Your task to perform on an android device: choose inbox layout in the gmail app Image 0: 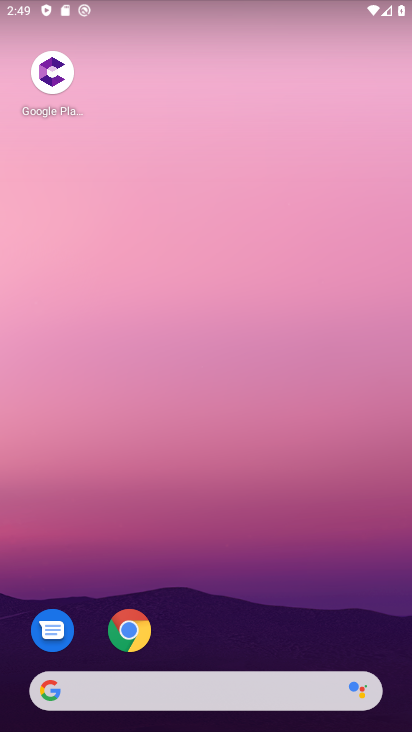
Step 0: drag from (178, 636) to (201, 248)
Your task to perform on an android device: choose inbox layout in the gmail app Image 1: 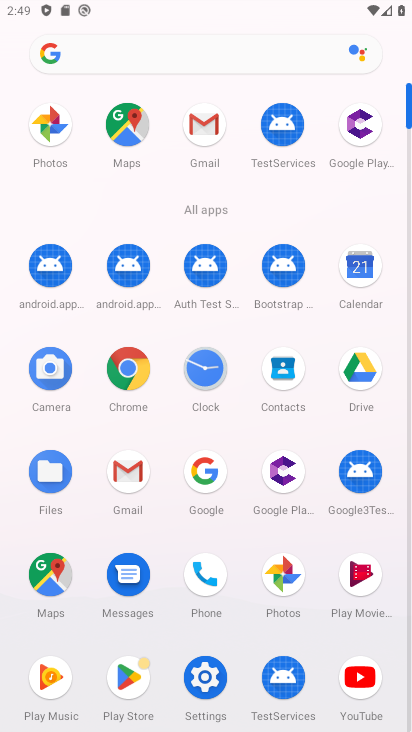
Step 1: click (127, 464)
Your task to perform on an android device: choose inbox layout in the gmail app Image 2: 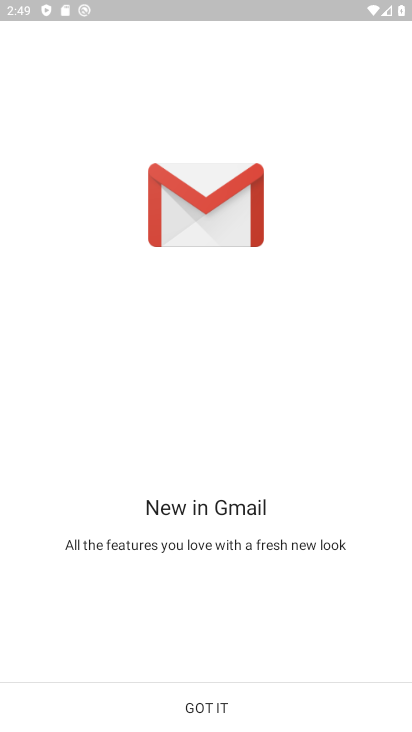
Step 2: click (187, 702)
Your task to perform on an android device: choose inbox layout in the gmail app Image 3: 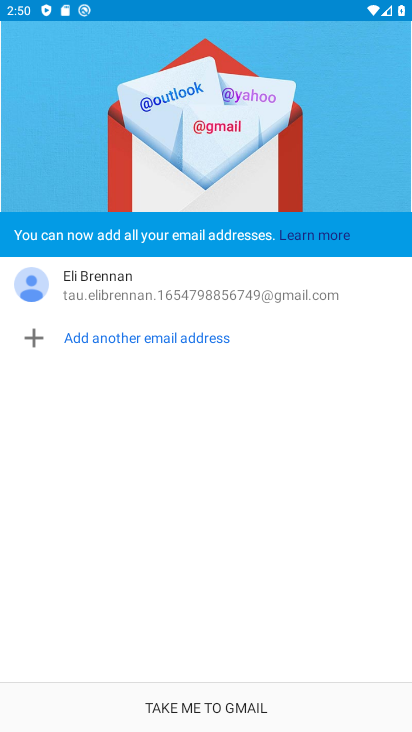
Step 3: click (190, 719)
Your task to perform on an android device: choose inbox layout in the gmail app Image 4: 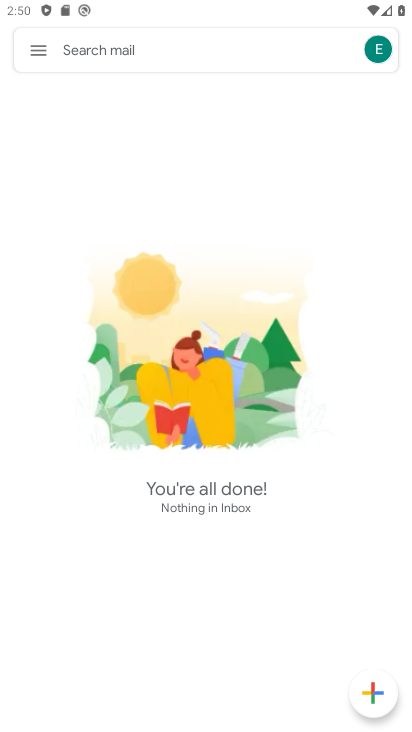
Step 4: click (42, 59)
Your task to perform on an android device: choose inbox layout in the gmail app Image 5: 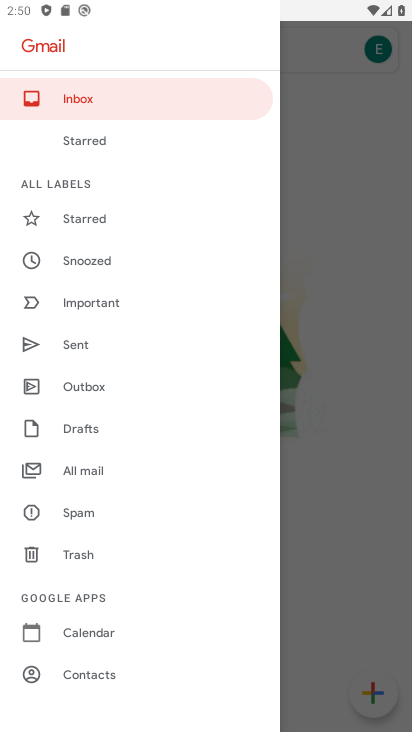
Step 5: drag from (84, 624) to (150, 253)
Your task to perform on an android device: choose inbox layout in the gmail app Image 6: 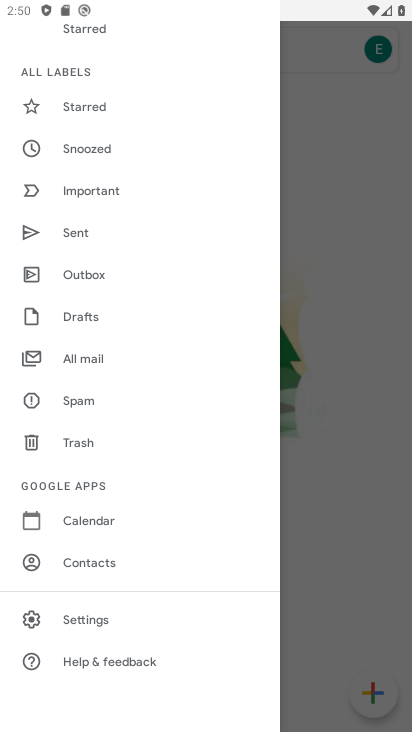
Step 6: click (118, 621)
Your task to perform on an android device: choose inbox layout in the gmail app Image 7: 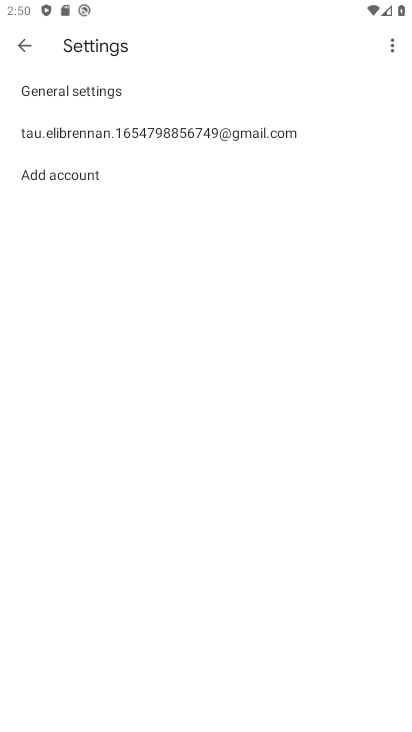
Step 7: click (130, 124)
Your task to perform on an android device: choose inbox layout in the gmail app Image 8: 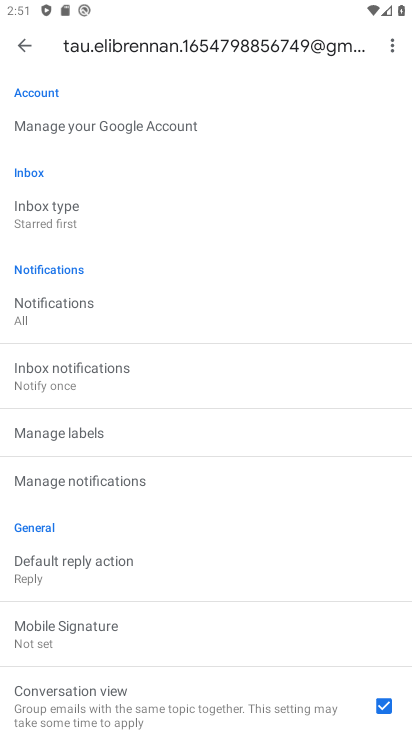
Step 8: click (100, 210)
Your task to perform on an android device: choose inbox layout in the gmail app Image 9: 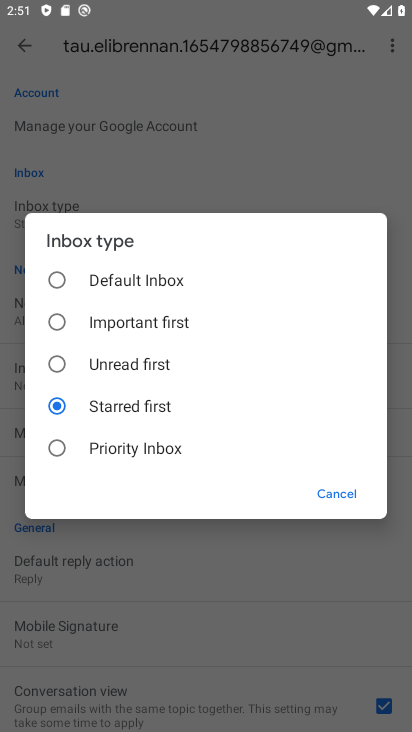
Step 9: click (102, 289)
Your task to perform on an android device: choose inbox layout in the gmail app Image 10: 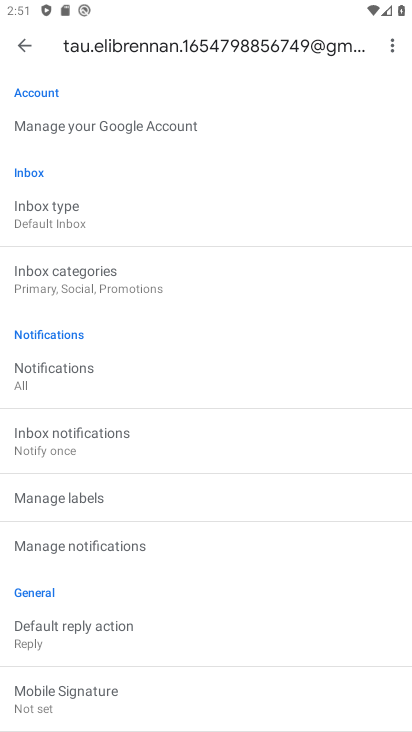
Step 10: task complete